Your task to perform on an android device: Check the news Image 0: 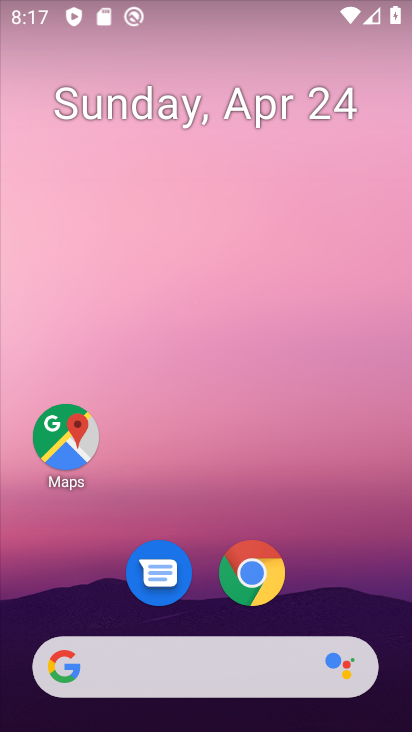
Step 0: click (271, 574)
Your task to perform on an android device: Check the news Image 1: 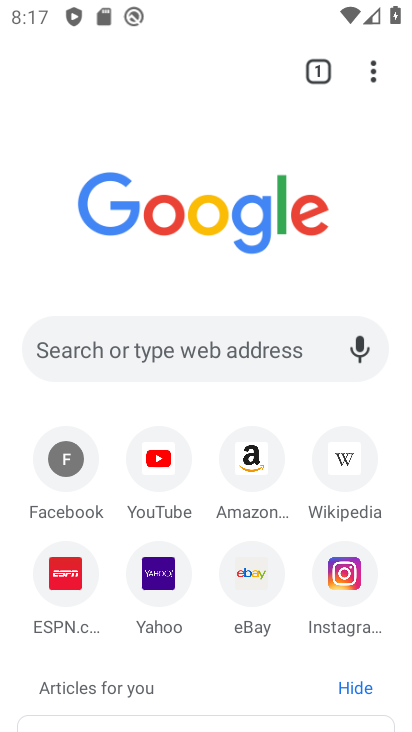
Step 1: click (230, 353)
Your task to perform on an android device: Check the news Image 2: 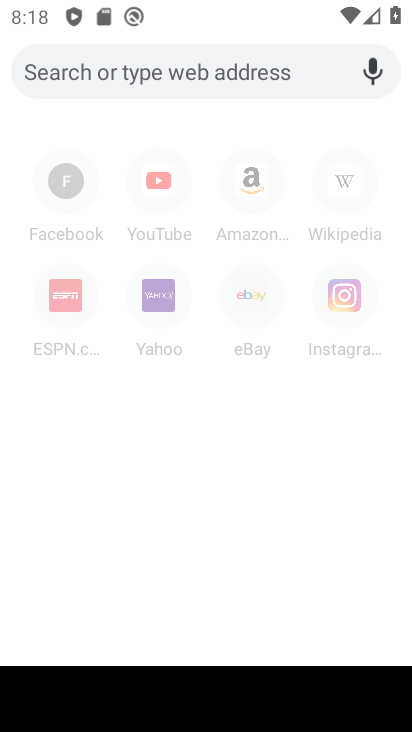
Step 2: type "news"
Your task to perform on an android device: Check the news Image 3: 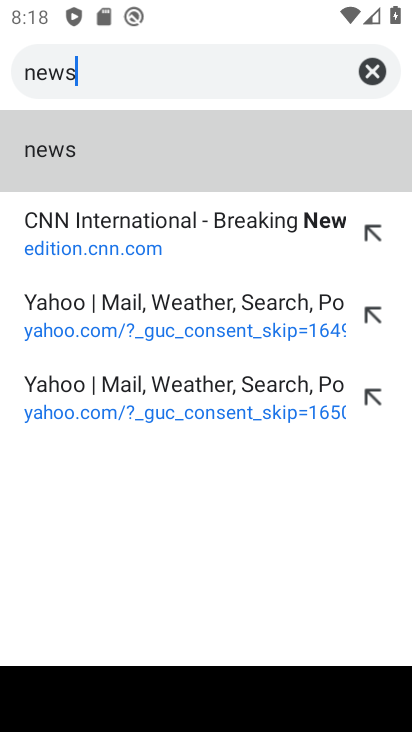
Step 3: click (66, 145)
Your task to perform on an android device: Check the news Image 4: 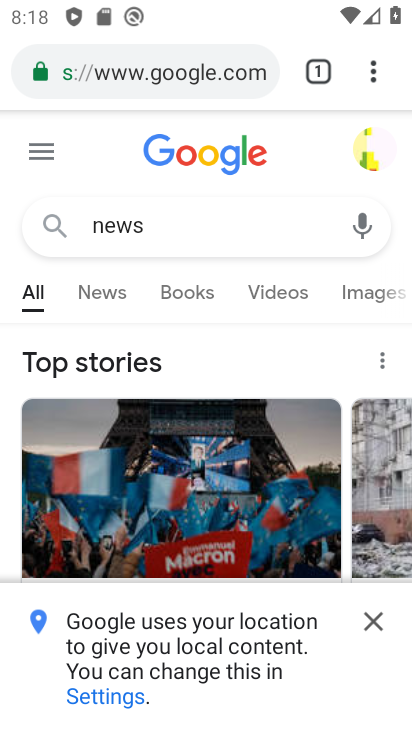
Step 4: click (102, 289)
Your task to perform on an android device: Check the news Image 5: 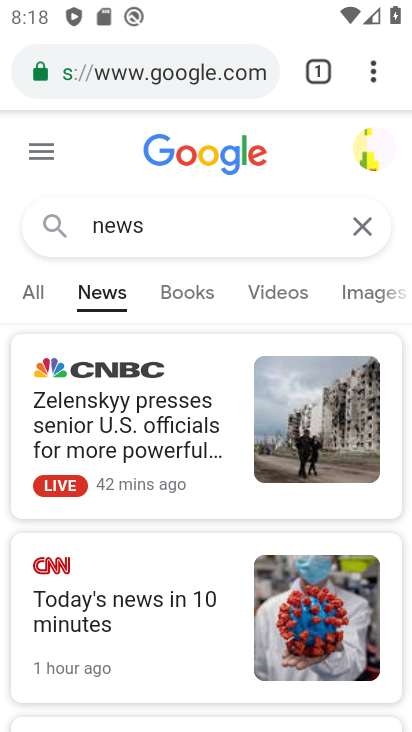
Step 5: task complete